Your task to perform on an android device: toggle notification dots Image 0: 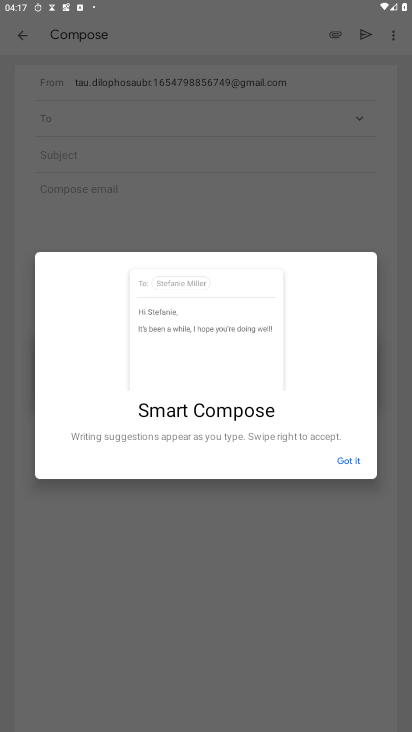
Step 0: press home button
Your task to perform on an android device: toggle notification dots Image 1: 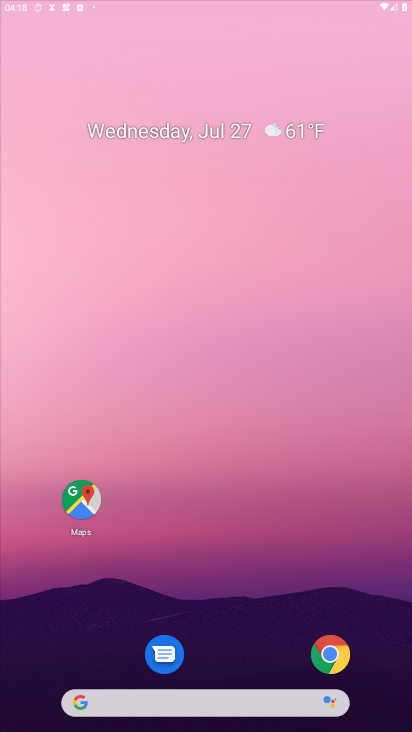
Step 1: drag from (240, 695) to (292, 7)
Your task to perform on an android device: toggle notification dots Image 2: 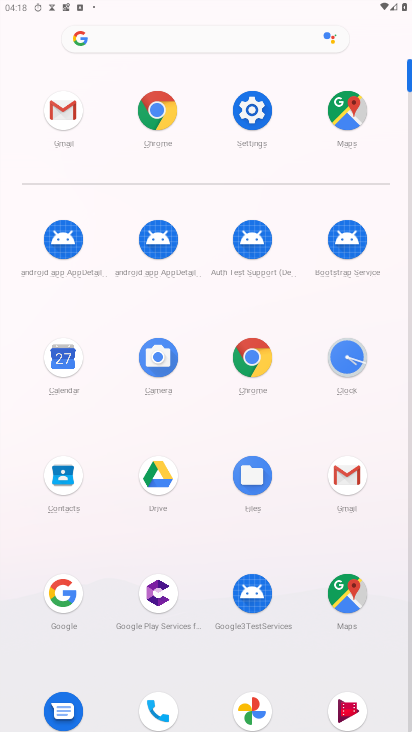
Step 2: click (262, 96)
Your task to perform on an android device: toggle notification dots Image 3: 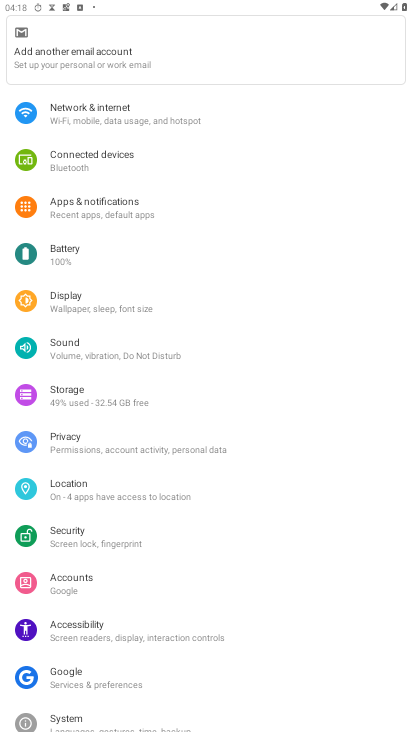
Step 3: click (120, 193)
Your task to perform on an android device: toggle notification dots Image 4: 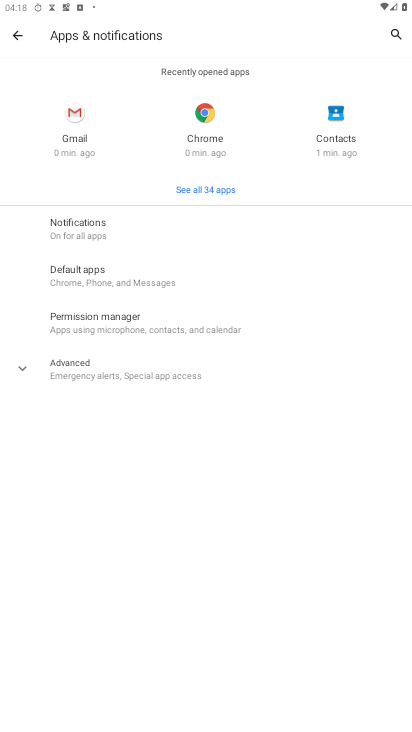
Step 4: click (79, 238)
Your task to perform on an android device: toggle notification dots Image 5: 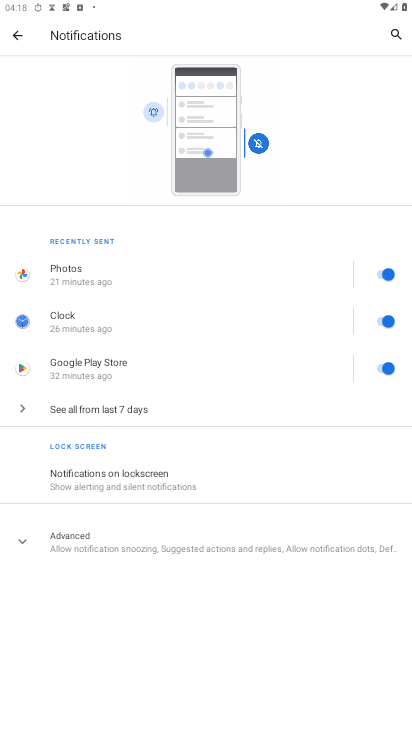
Step 5: click (110, 547)
Your task to perform on an android device: toggle notification dots Image 6: 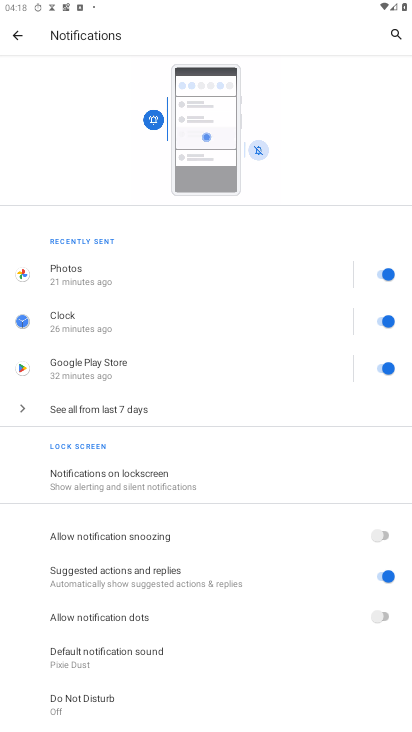
Step 6: click (376, 613)
Your task to perform on an android device: toggle notification dots Image 7: 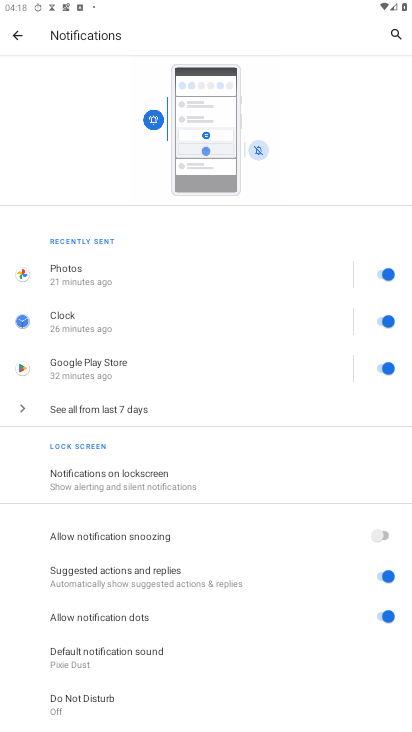
Step 7: task complete